Your task to perform on an android device: Open display settings Image 0: 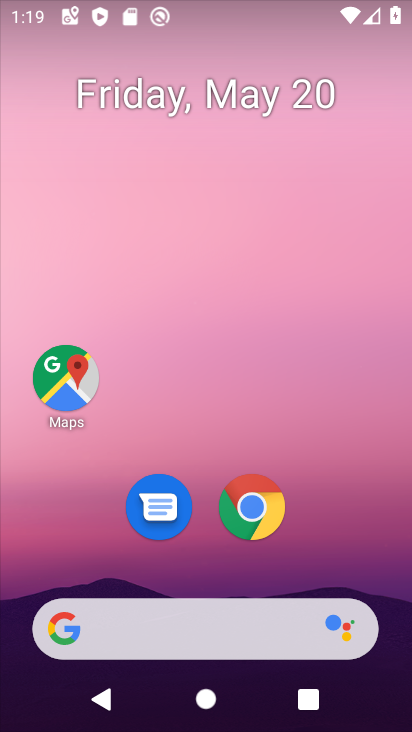
Step 0: drag from (214, 723) to (216, 128)
Your task to perform on an android device: Open display settings Image 1: 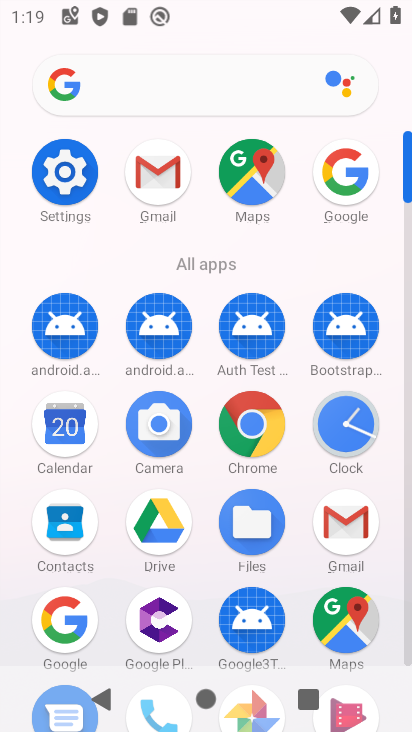
Step 1: click (48, 162)
Your task to perform on an android device: Open display settings Image 2: 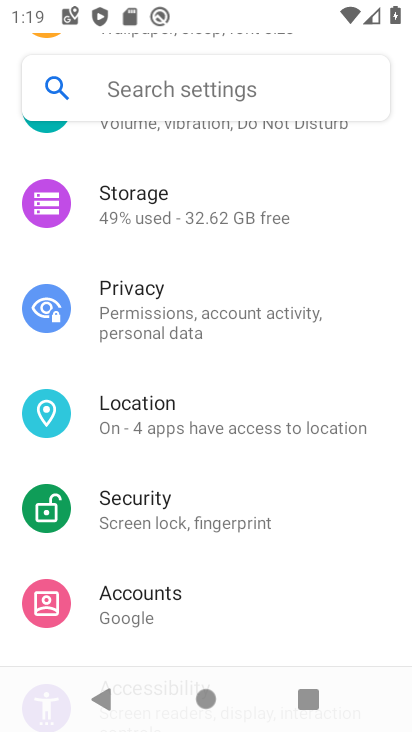
Step 2: drag from (182, 230) to (209, 497)
Your task to perform on an android device: Open display settings Image 3: 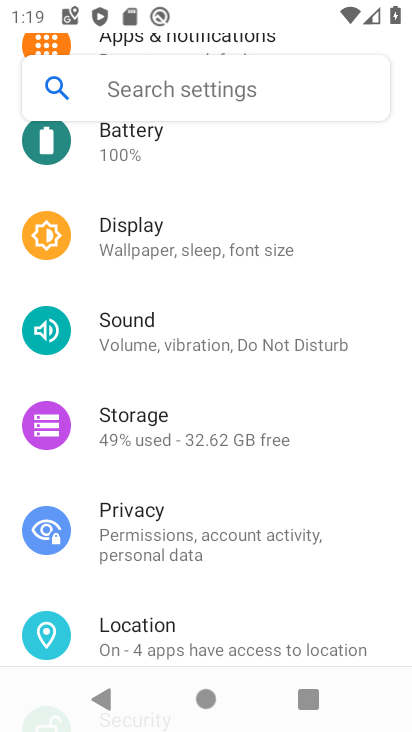
Step 3: click (148, 229)
Your task to perform on an android device: Open display settings Image 4: 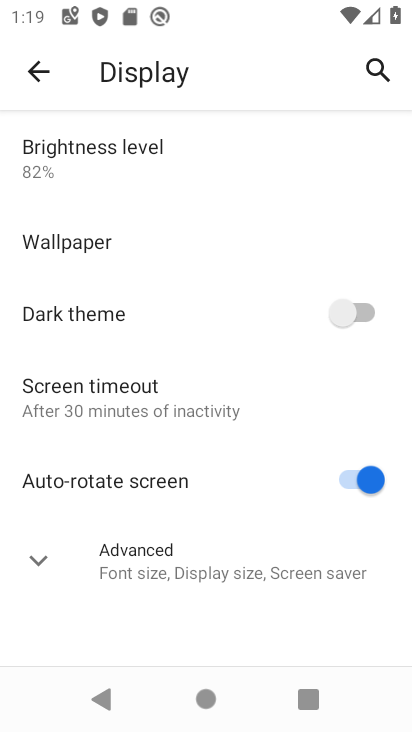
Step 4: task complete